Your task to perform on an android device: turn notification dots off Image 0: 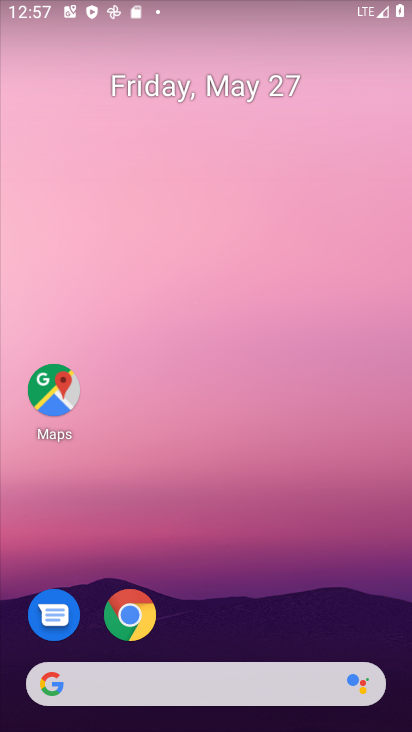
Step 0: drag from (154, 641) to (172, 17)
Your task to perform on an android device: turn notification dots off Image 1: 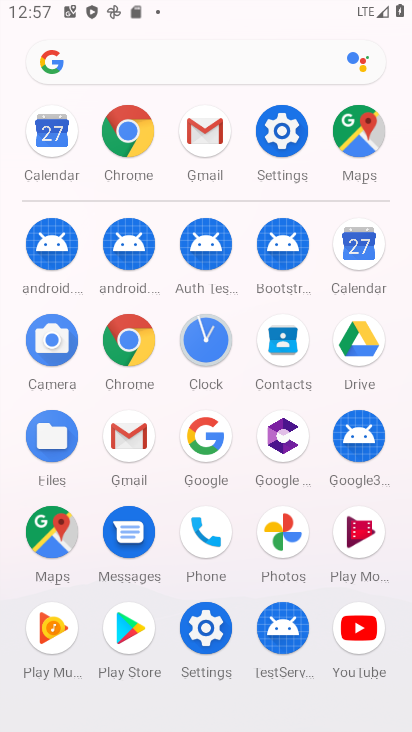
Step 1: click (270, 137)
Your task to perform on an android device: turn notification dots off Image 2: 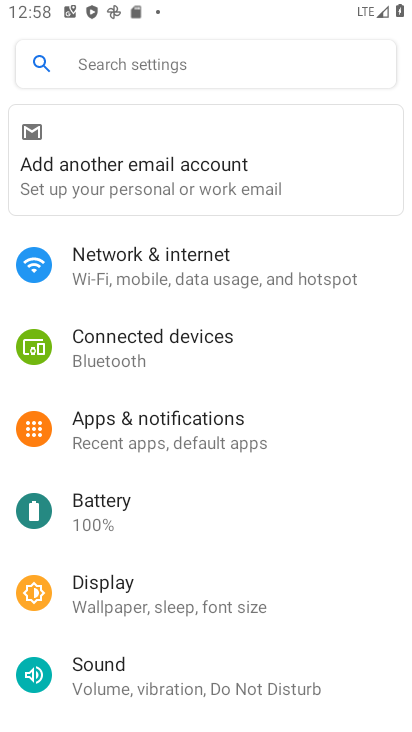
Step 2: click (172, 418)
Your task to perform on an android device: turn notification dots off Image 3: 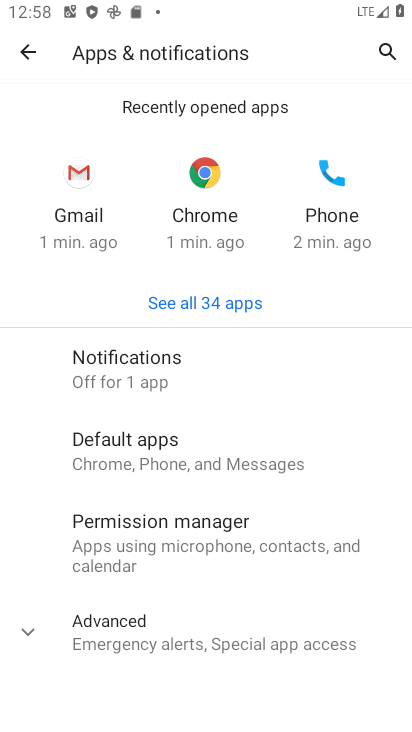
Step 3: click (188, 373)
Your task to perform on an android device: turn notification dots off Image 4: 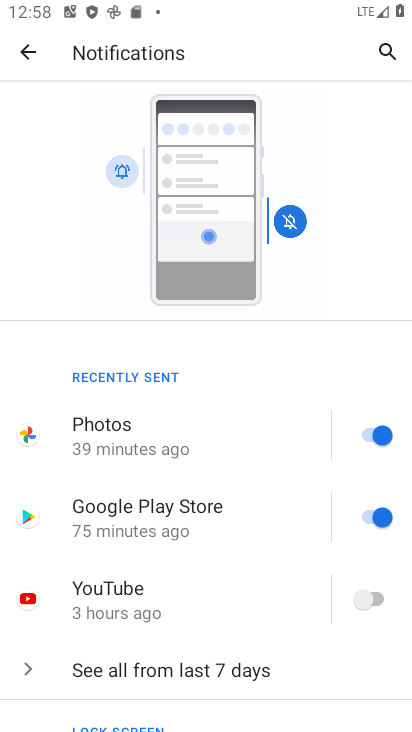
Step 4: drag from (232, 688) to (198, 137)
Your task to perform on an android device: turn notification dots off Image 5: 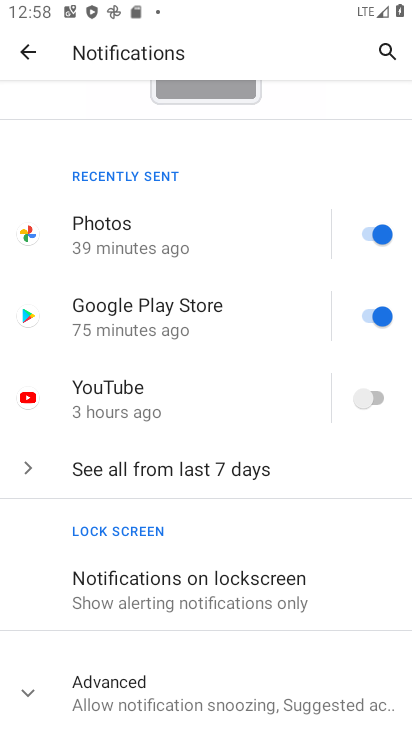
Step 5: click (167, 697)
Your task to perform on an android device: turn notification dots off Image 6: 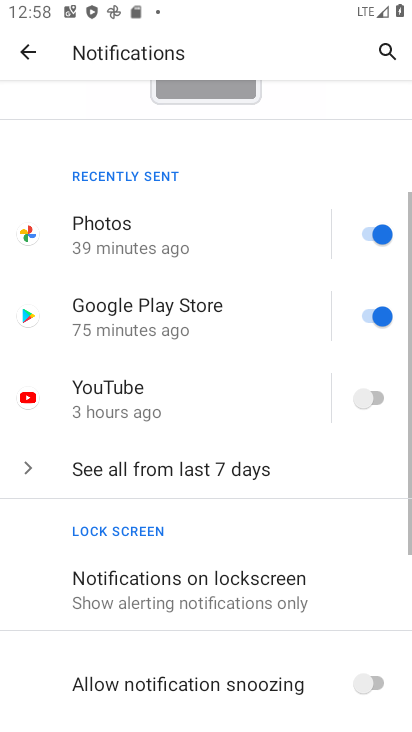
Step 6: task complete